Your task to perform on an android device: find photos in the google photos app Image 0: 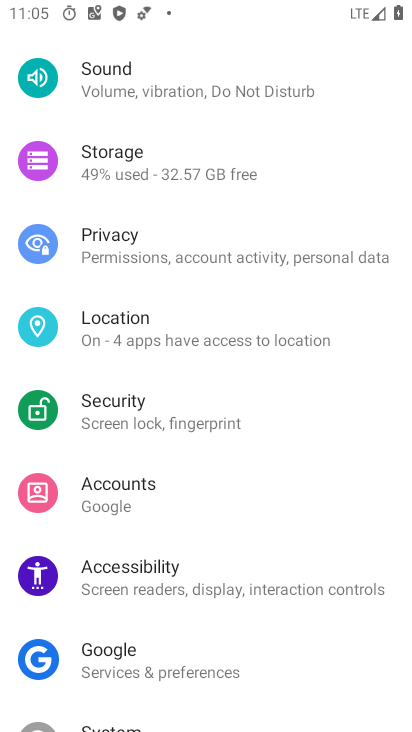
Step 0: press home button
Your task to perform on an android device: find photos in the google photos app Image 1: 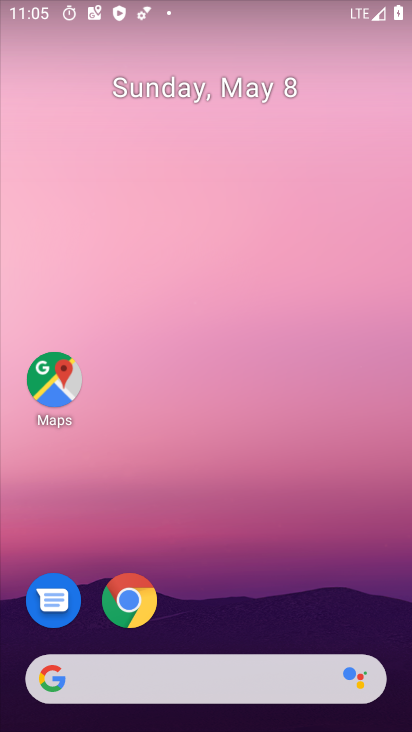
Step 1: drag from (17, 655) to (268, 232)
Your task to perform on an android device: find photos in the google photos app Image 2: 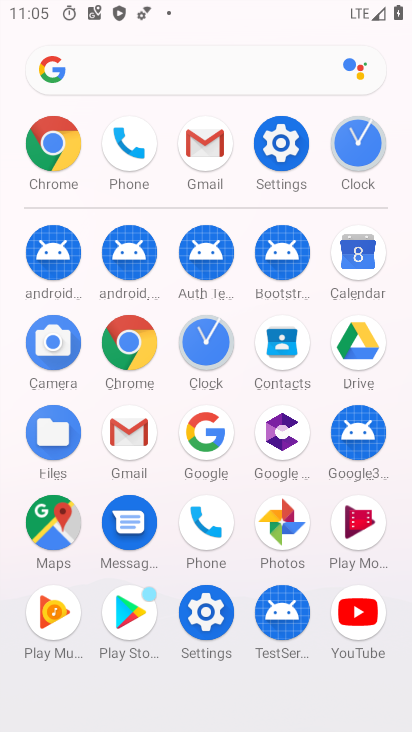
Step 2: click (281, 524)
Your task to perform on an android device: find photos in the google photos app Image 3: 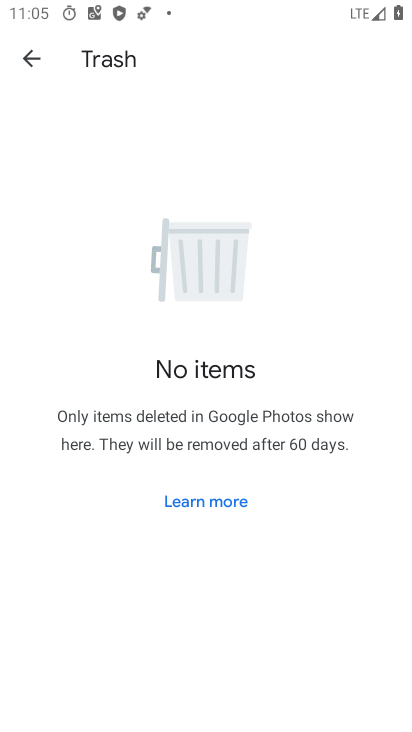
Step 3: press back button
Your task to perform on an android device: find photos in the google photos app Image 4: 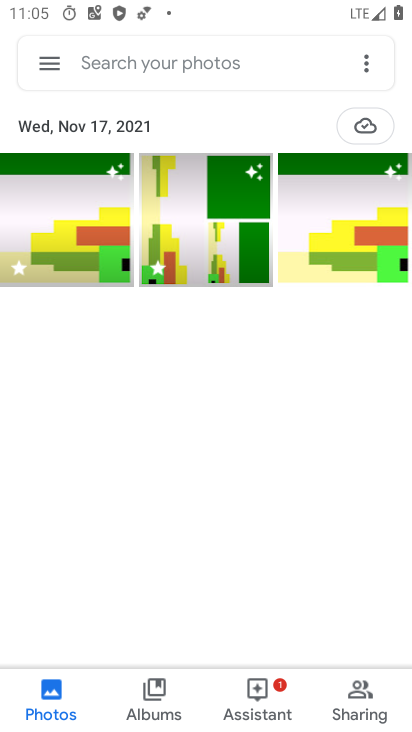
Step 4: click (53, 69)
Your task to perform on an android device: find photos in the google photos app Image 5: 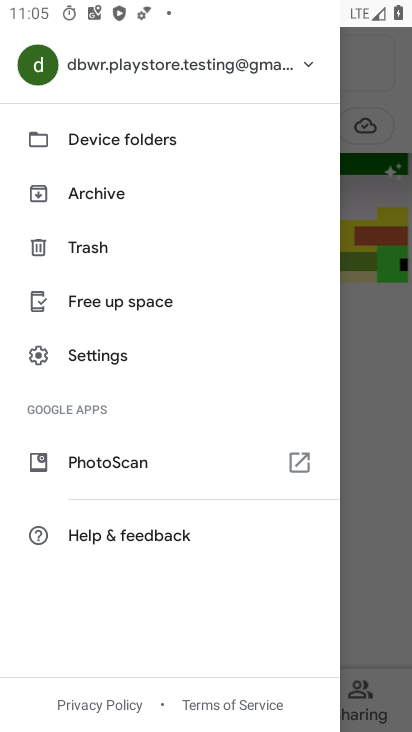
Step 5: click (379, 399)
Your task to perform on an android device: find photos in the google photos app Image 6: 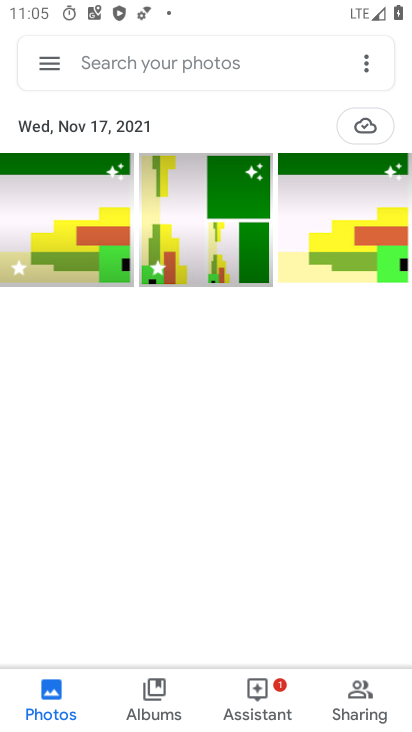
Step 6: click (180, 68)
Your task to perform on an android device: find photos in the google photos app Image 7: 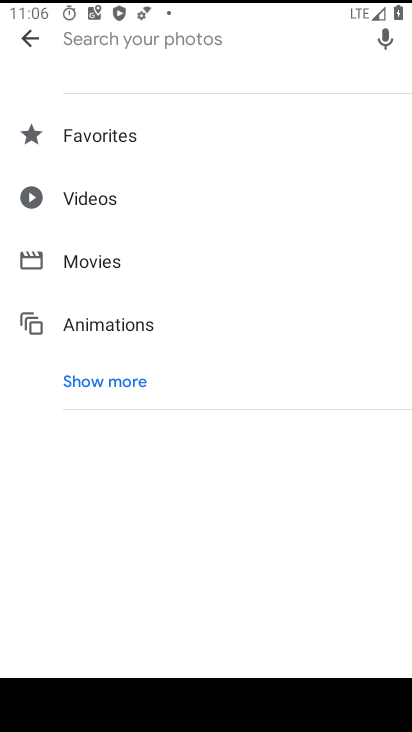
Step 7: task complete